Your task to perform on an android device: change the clock display to analog Image 0: 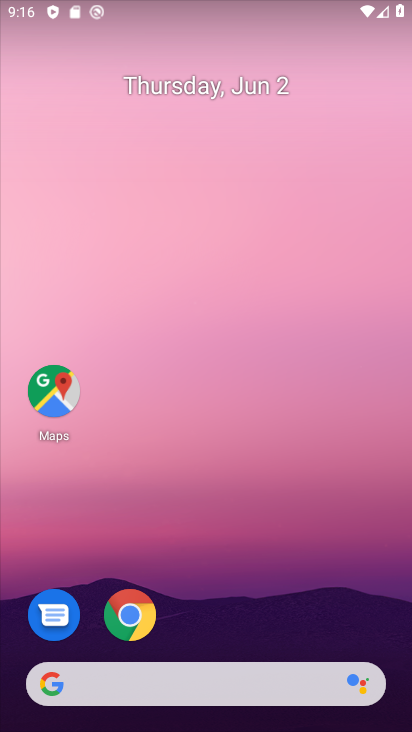
Step 0: drag from (184, 633) to (170, 259)
Your task to perform on an android device: change the clock display to analog Image 1: 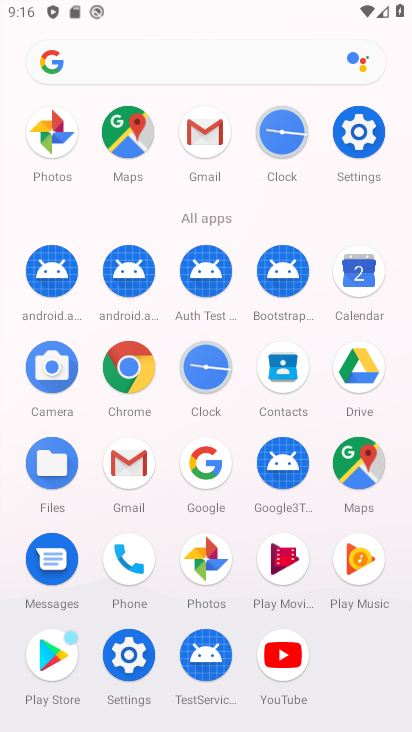
Step 1: click (276, 133)
Your task to perform on an android device: change the clock display to analog Image 2: 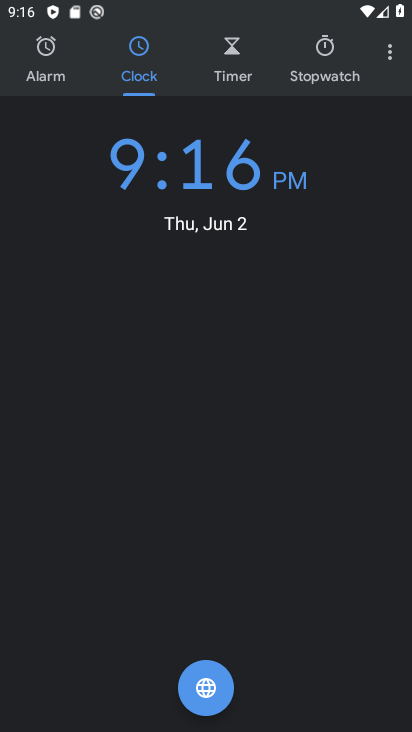
Step 2: click (390, 56)
Your task to perform on an android device: change the clock display to analog Image 3: 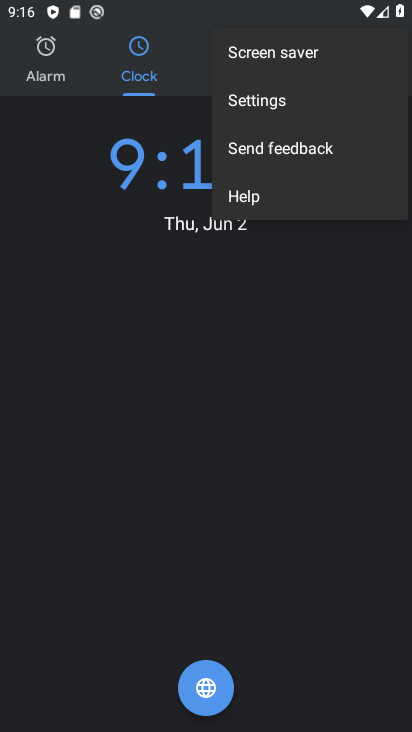
Step 3: click (242, 108)
Your task to perform on an android device: change the clock display to analog Image 4: 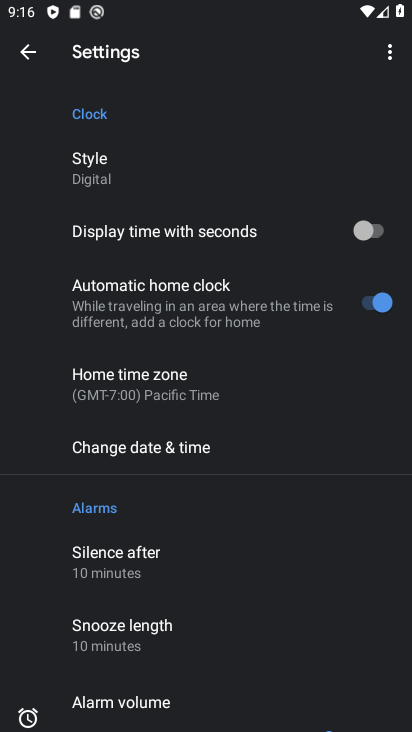
Step 4: click (106, 169)
Your task to perform on an android device: change the clock display to analog Image 5: 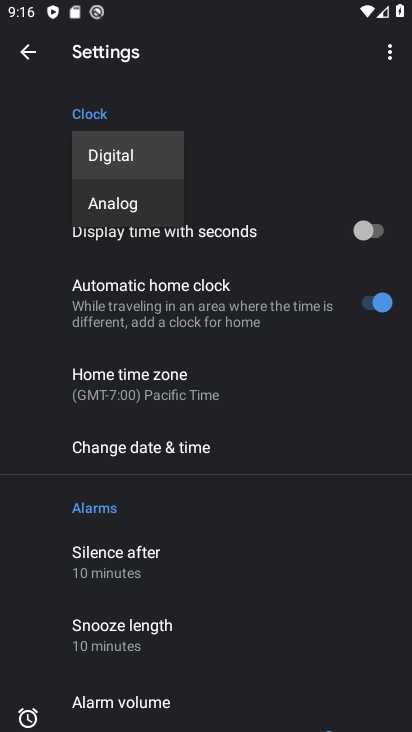
Step 5: click (126, 201)
Your task to perform on an android device: change the clock display to analog Image 6: 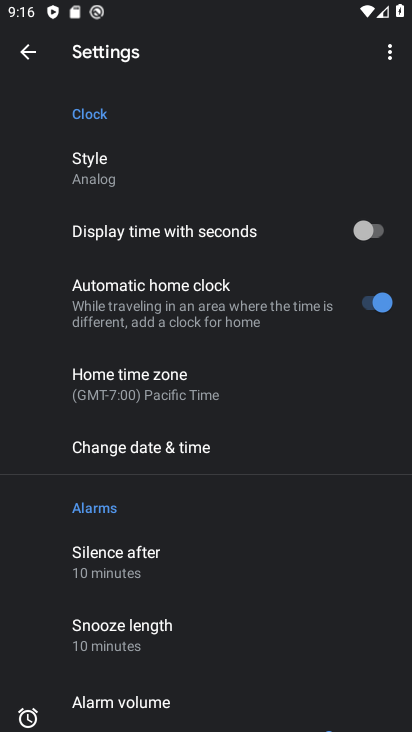
Step 6: task complete